Your task to perform on an android device: remove spam from my inbox in the gmail app Image 0: 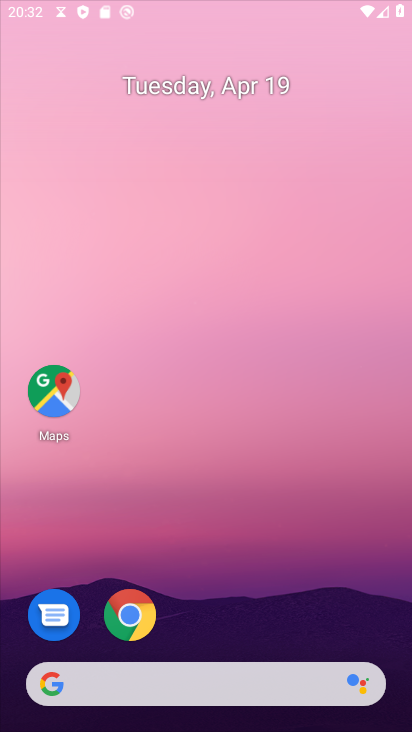
Step 0: click (161, 32)
Your task to perform on an android device: remove spam from my inbox in the gmail app Image 1: 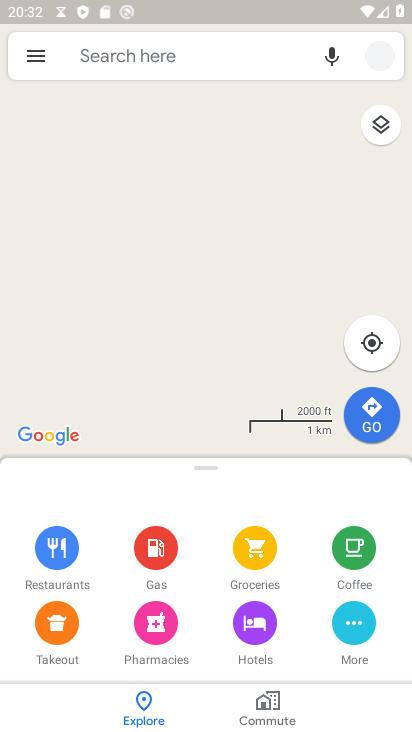
Step 1: press back button
Your task to perform on an android device: remove spam from my inbox in the gmail app Image 2: 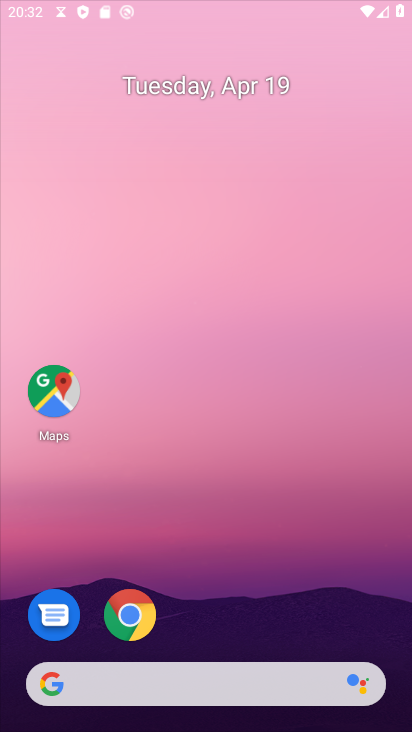
Step 2: drag from (336, 600) to (312, 41)
Your task to perform on an android device: remove spam from my inbox in the gmail app Image 3: 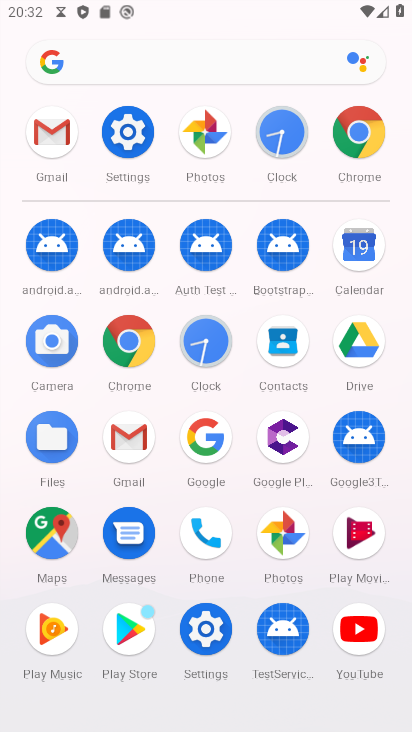
Step 3: click (127, 429)
Your task to perform on an android device: remove spam from my inbox in the gmail app Image 4: 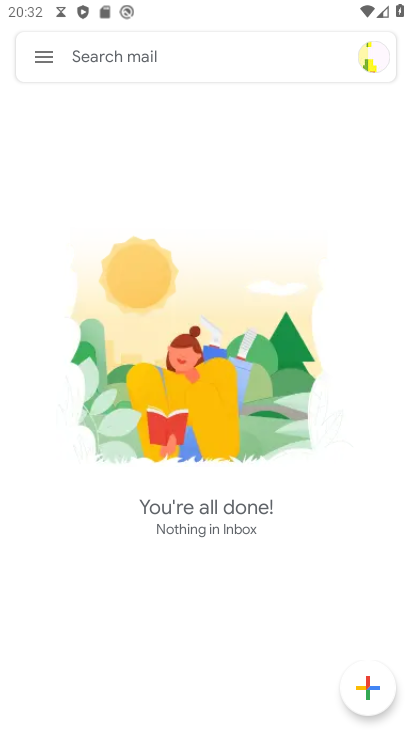
Step 4: click (44, 72)
Your task to perform on an android device: remove spam from my inbox in the gmail app Image 5: 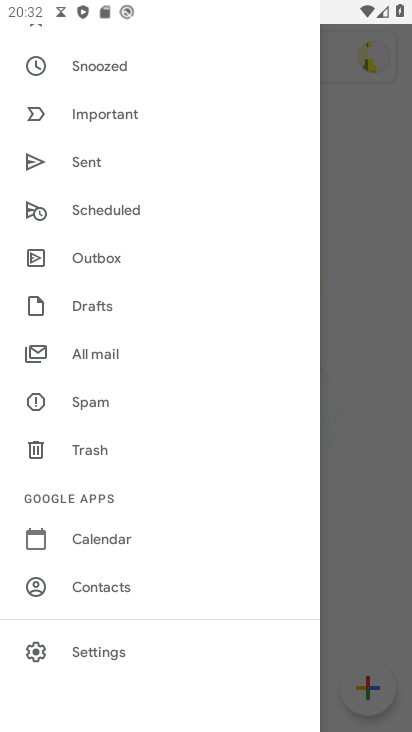
Step 5: click (113, 399)
Your task to perform on an android device: remove spam from my inbox in the gmail app Image 6: 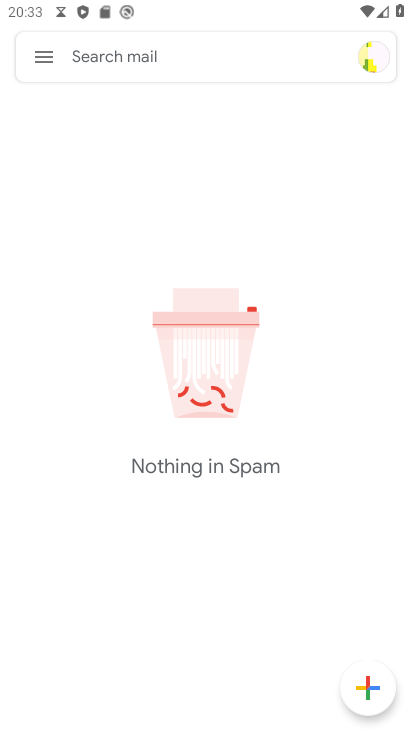
Step 6: task complete